Your task to perform on an android device: turn on javascript in the chrome app Image 0: 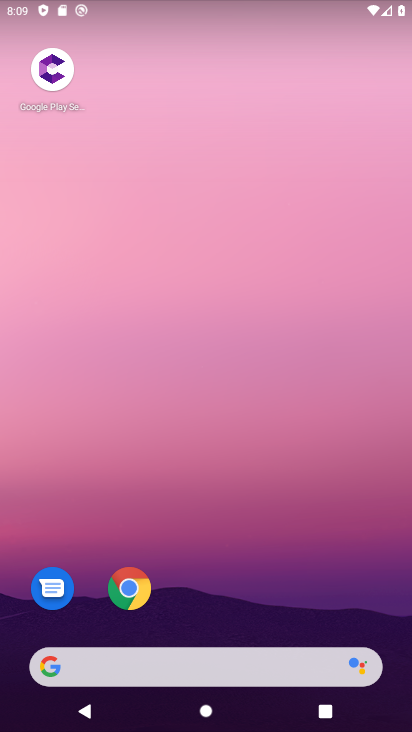
Step 0: drag from (249, 641) to (226, 206)
Your task to perform on an android device: turn on javascript in the chrome app Image 1: 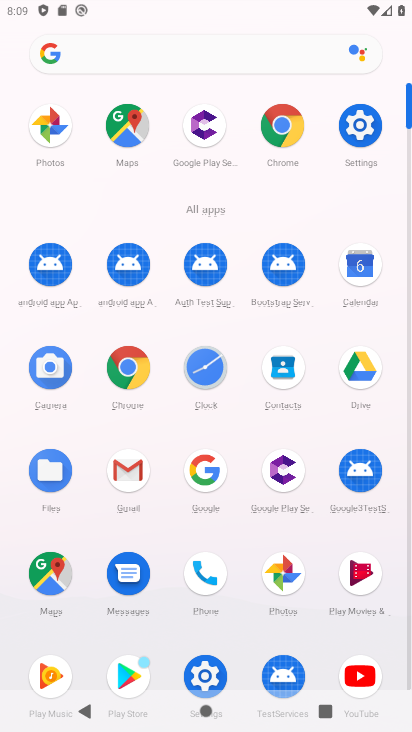
Step 1: click (281, 113)
Your task to perform on an android device: turn on javascript in the chrome app Image 2: 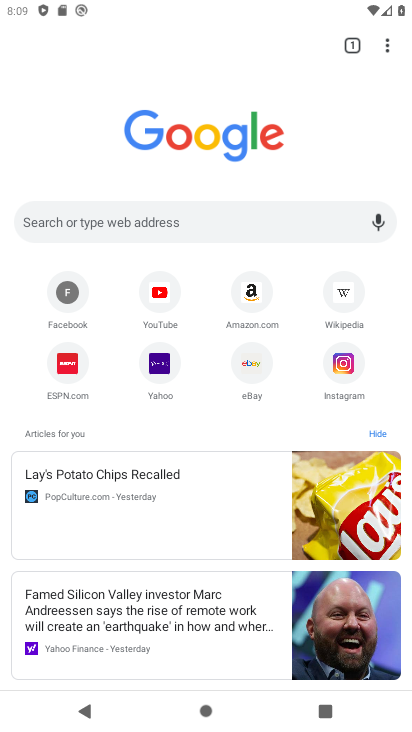
Step 2: click (384, 45)
Your task to perform on an android device: turn on javascript in the chrome app Image 3: 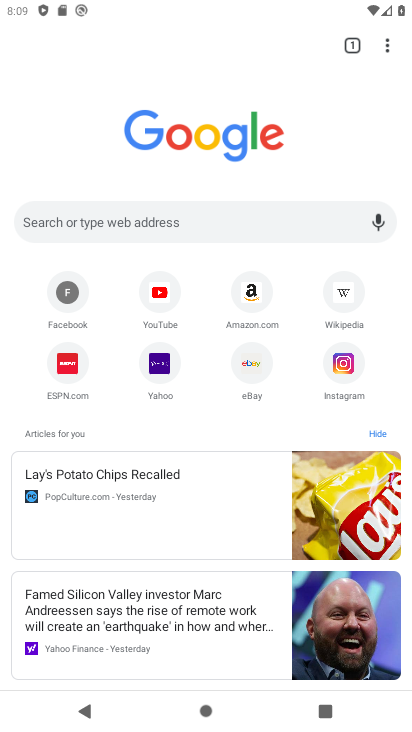
Step 3: click (383, 44)
Your task to perform on an android device: turn on javascript in the chrome app Image 4: 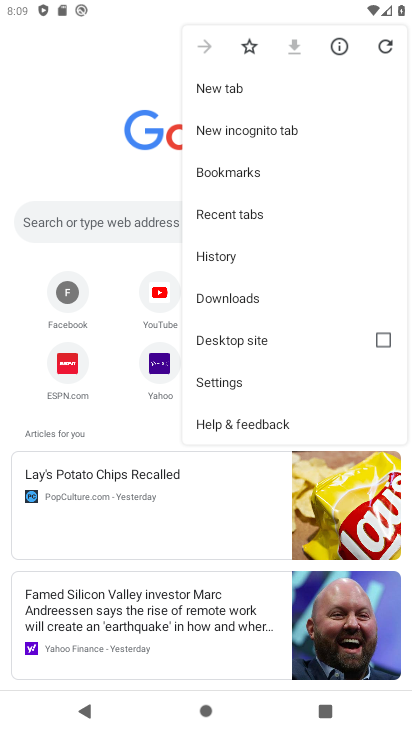
Step 4: click (235, 383)
Your task to perform on an android device: turn on javascript in the chrome app Image 5: 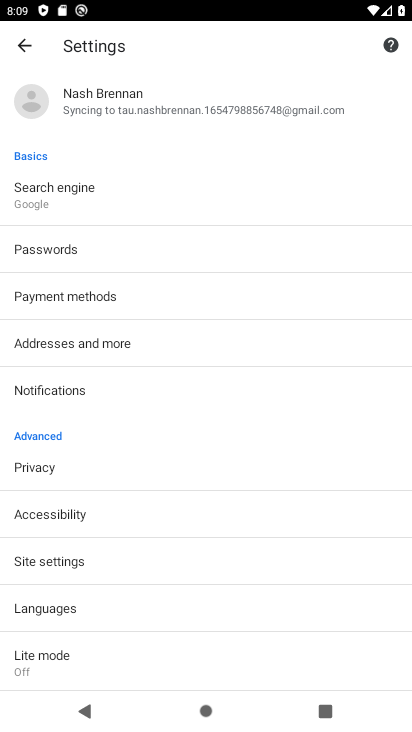
Step 5: drag from (208, 625) to (234, 244)
Your task to perform on an android device: turn on javascript in the chrome app Image 6: 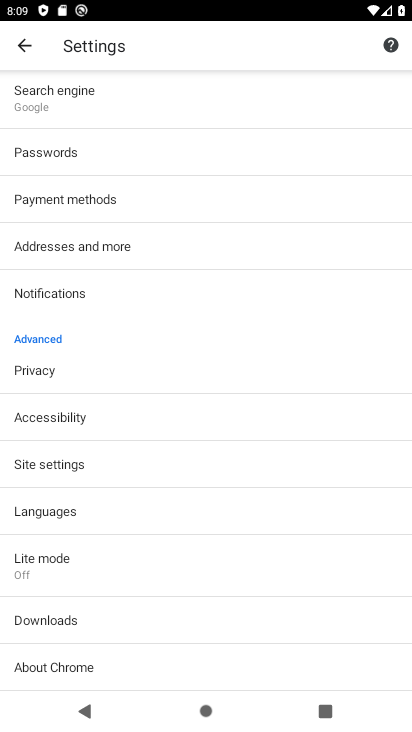
Step 6: drag from (200, 557) to (221, 256)
Your task to perform on an android device: turn on javascript in the chrome app Image 7: 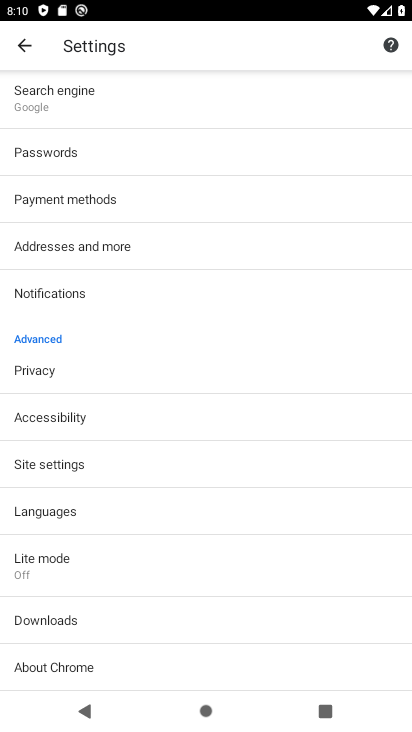
Step 7: click (171, 461)
Your task to perform on an android device: turn on javascript in the chrome app Image 8: 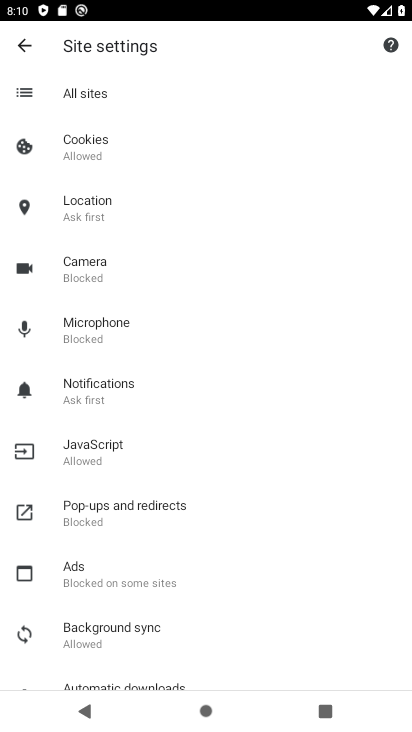
Step 8: click (117, 443)
Your task to perform on an android device: turn on javascript in the chrome app Image 9: 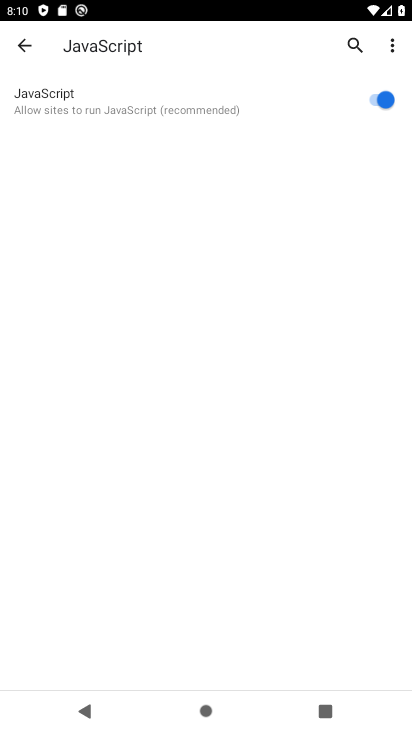
Step 9: task complete